Your task to perform on an android device: Search for Italian restaurants on Maps Image 0: 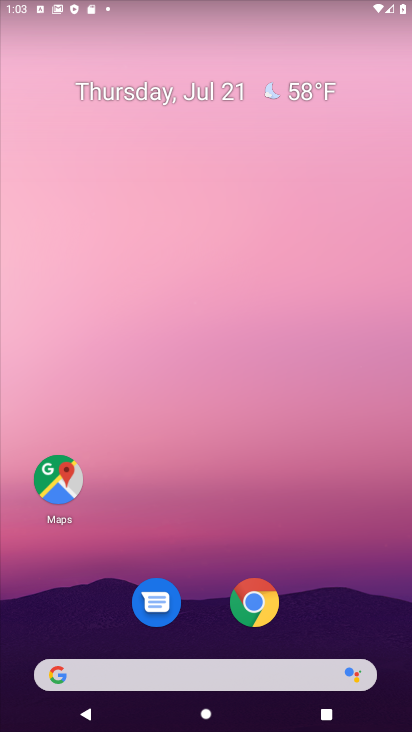
Step 0: drag from (403, 638) to (141, 43)
Your task to perform on an android device: Search for Italian restaurants on Maps Image 1: 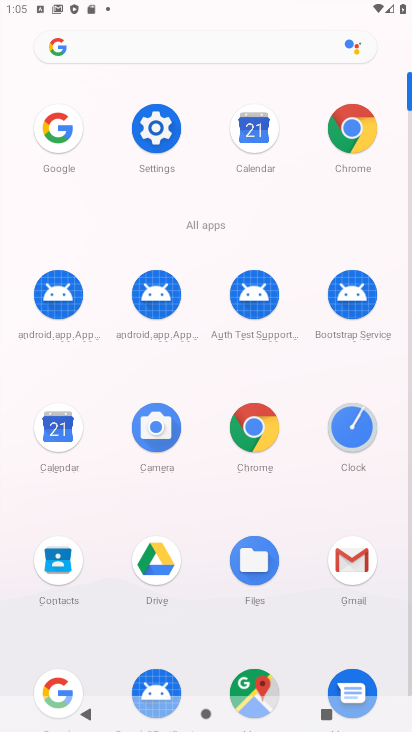
Step 1: click (256, 669)
Your task to perform on an android device: Search for Italian restaurants on Maps Image 2: 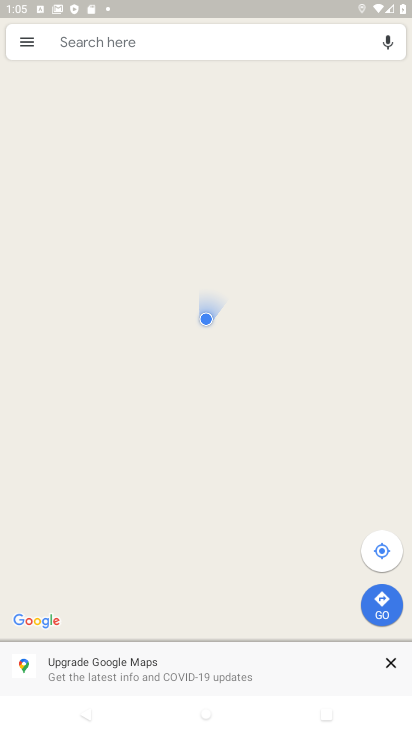
Step 2: click (107, 52)
Your task to perform on an android device: Search for Italian restaurants on Maps Image 3: 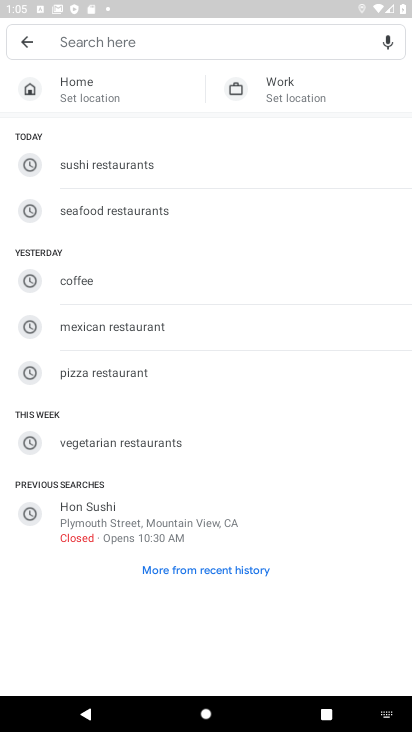
Step 3: type "Italian restaurants "
Your task to perform on an android device: Search for Italian restaurants on Maps Image 4: 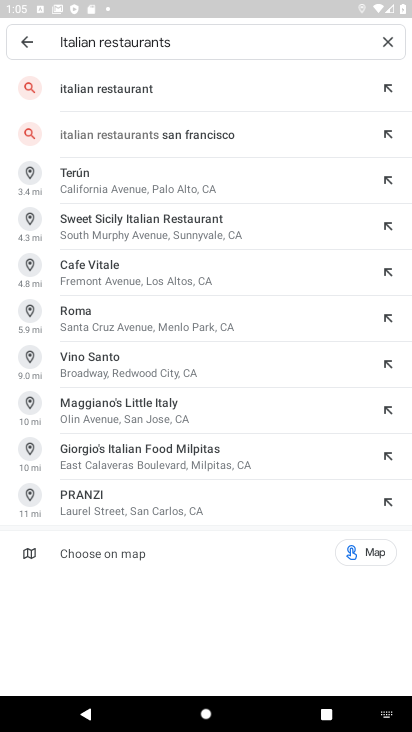
Step 4: click (128, 99)
Your task to perform on an android device: Search for Italian restaurants on Maps Image 5: 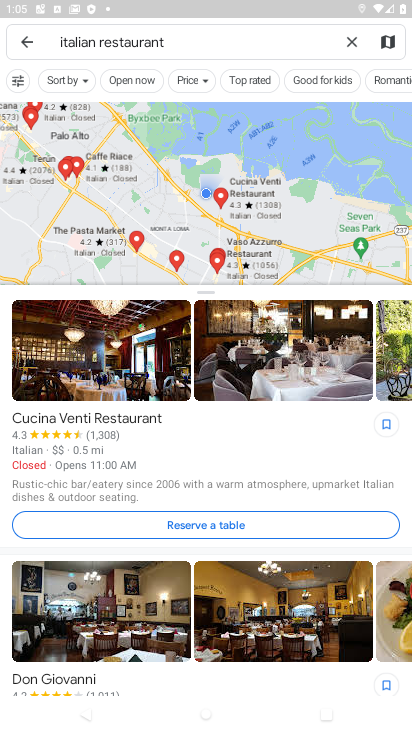
Step 5: task complete